Your task to perform on an android device: find photos in the google photos app Image 0: 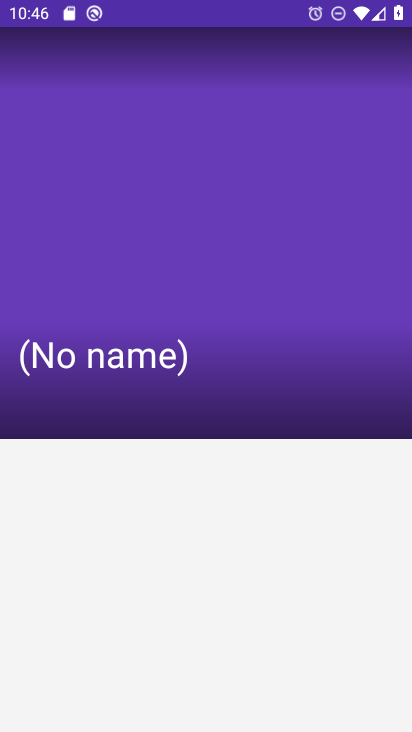
Step 0: drag from (401, 638) to (301, 112)
Your task to perform on an android device: find photos in the google photos app Image 1: 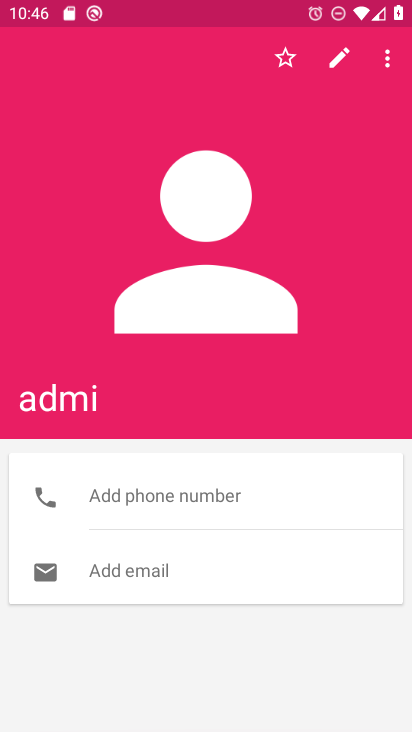
Step 1: press home button
Your task to perform on an android device: find photos in the google photos app Image 2: 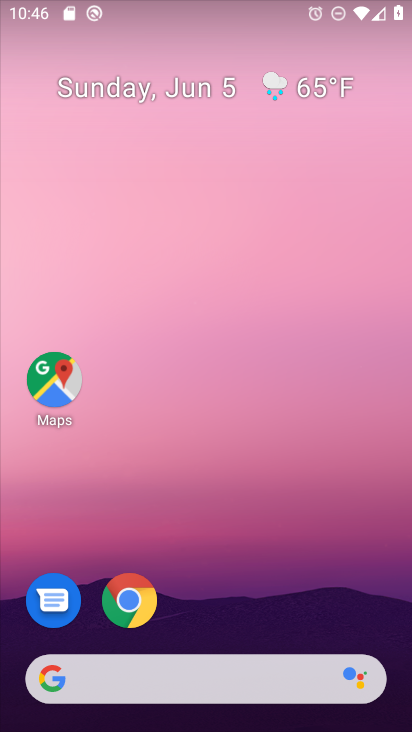
Step 2: drag from (389, 638) to (234, 115)
Your task to perform on an android device: find photos in the google photos app Image 3: 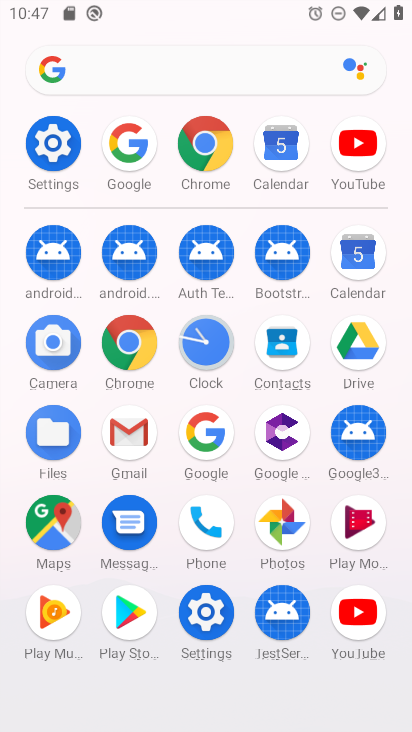
Step 3: click (284, 549)
Your task to perform on an android device: find photos in the google photos app Image 4: 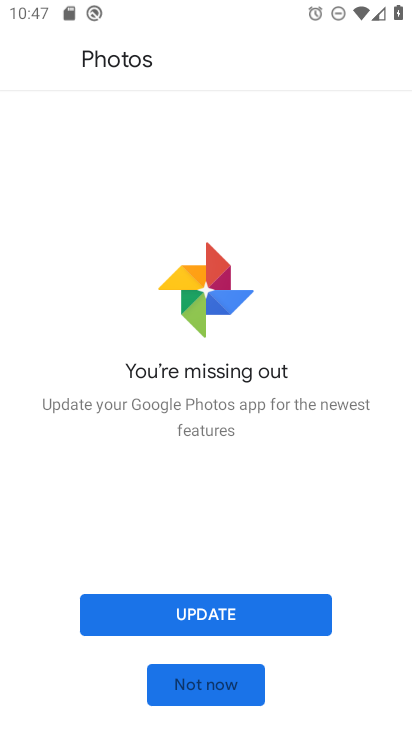
Step 4: click (245, 610)
Your task to perform on an android device: find photos in the google photos app Image 5: 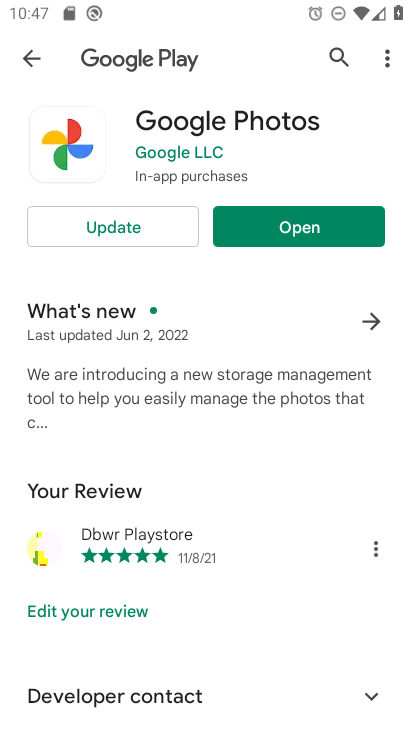
Step 5: click (125, 229)
Your task to perform on an android device: find photos in the google photos app Image 6: 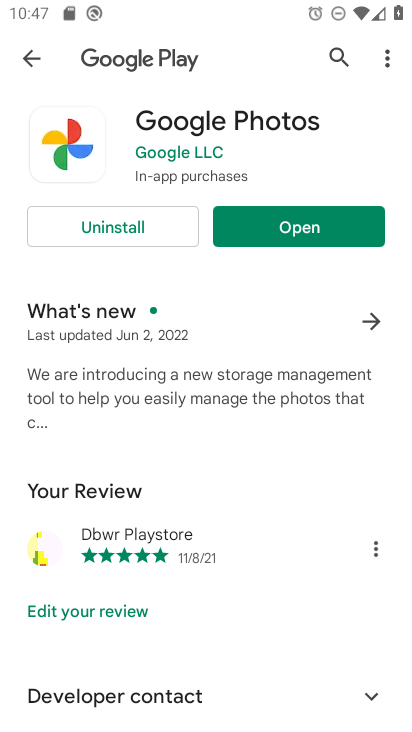
Step 6: click (297, 221)
Your task to perform on an android device: find photos in the google photos app Image 7: 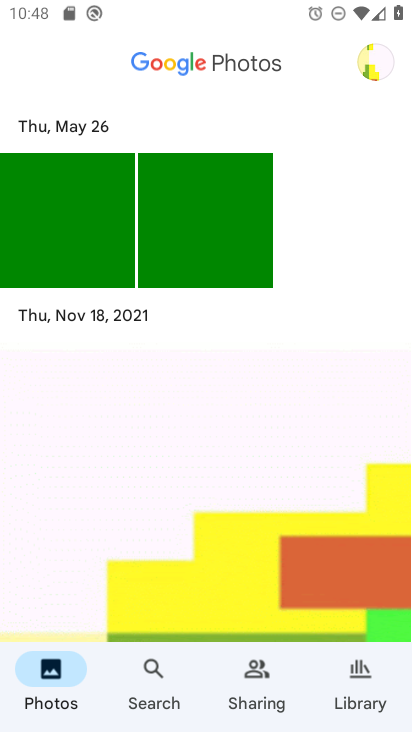
Step 7: task complete